Your task to perform on an android device: Is it going to rain today? Image 0: 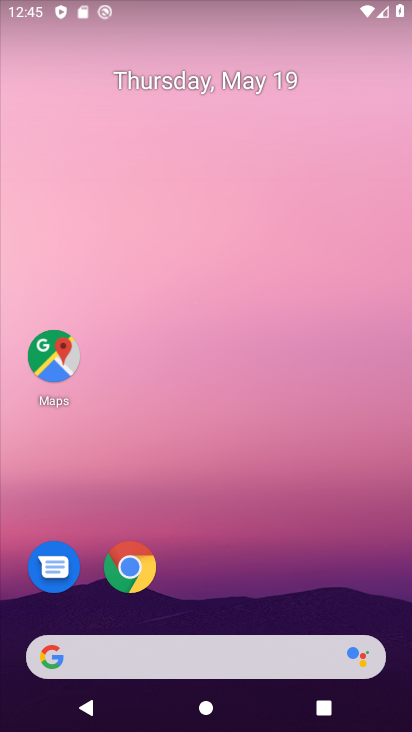
Step 0: click (165, 657)
Your task to perform on an android device: Is it going to rain today? Image 1: 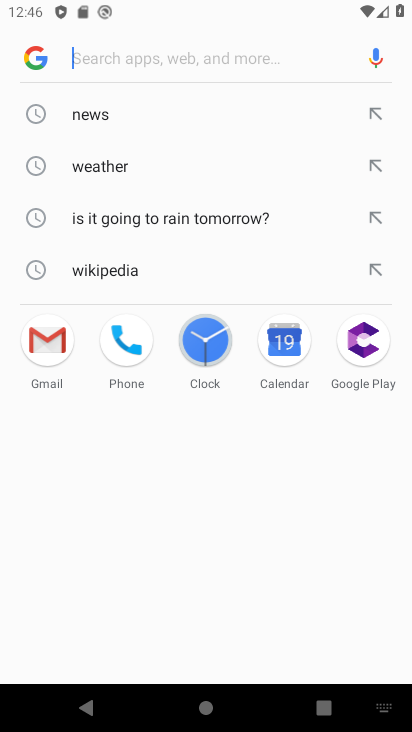
Step 1: click (90, 168)
Your task to perform on an android device: Is it going to rain today? Image 2: 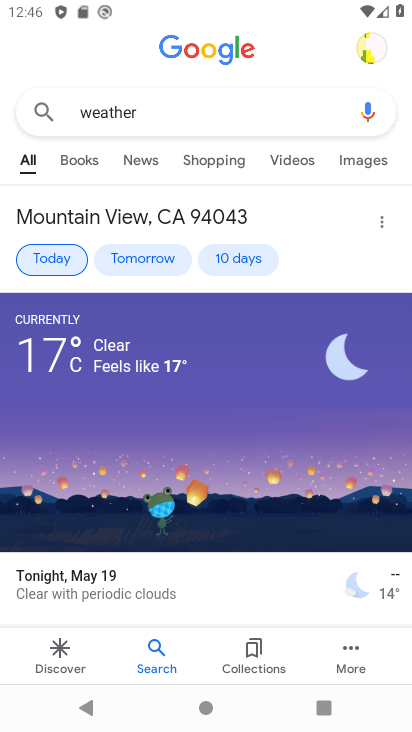
Step 2: task complete